Your task to perform on an android device: Clear the shopping cart on costco. Search for duracell triple a on costco, select the first entry, and add it to the cart. Image 0: 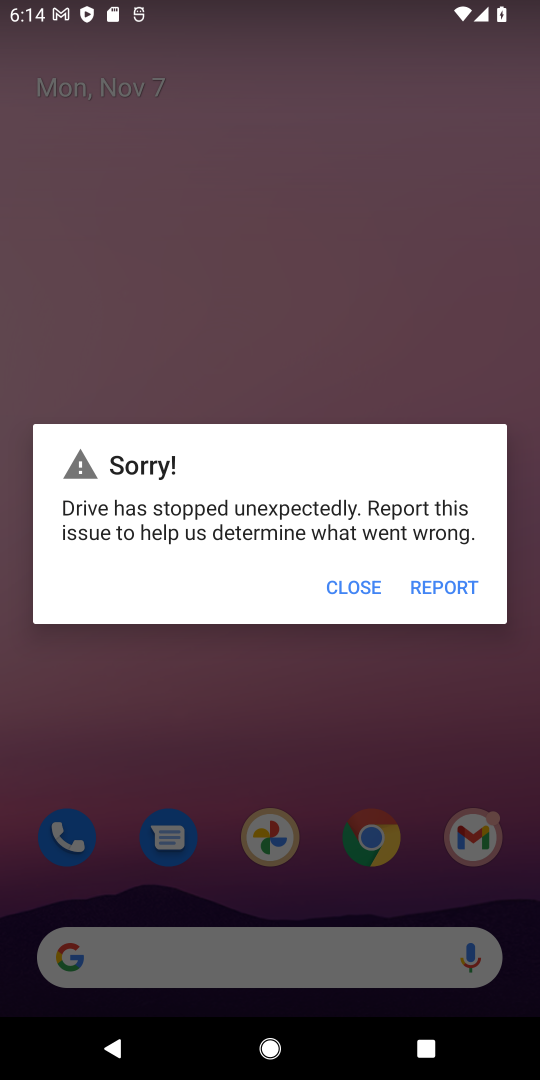
Step 0: press home button
Your task to perform on an android device: Clear the shopping cart on costco. Search for duracell triple a on costco, select the first entry, and add it to the cart. Image 1: 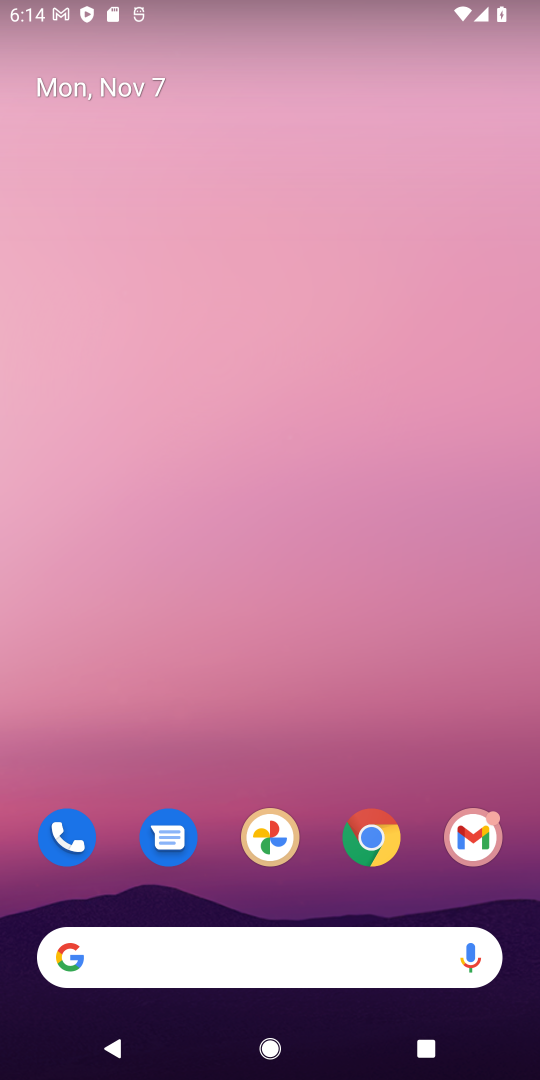
Step 1: click (369, 863)
Your task to perform on an android device: Clear the shopping cart on costco. Search for duracell triple a on costco, select the first entry, and add it to the cart. Image 2: 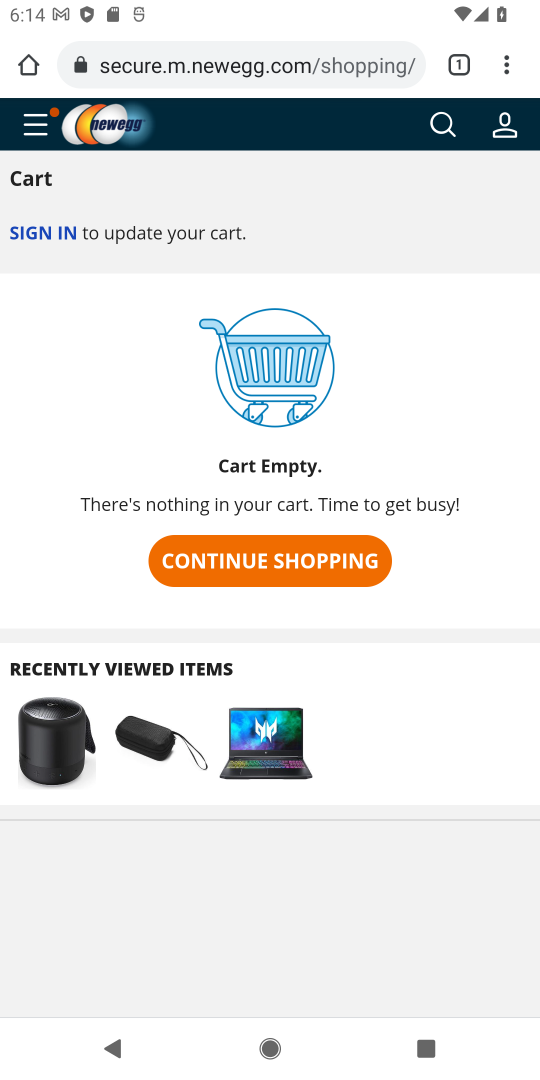
Step 2: click (216, 76)
Your task to perform on an android device: Clear the shopping cart on costco. Search for duracell triple a on costco, select the first entry, and add it to the cart. Image 3: 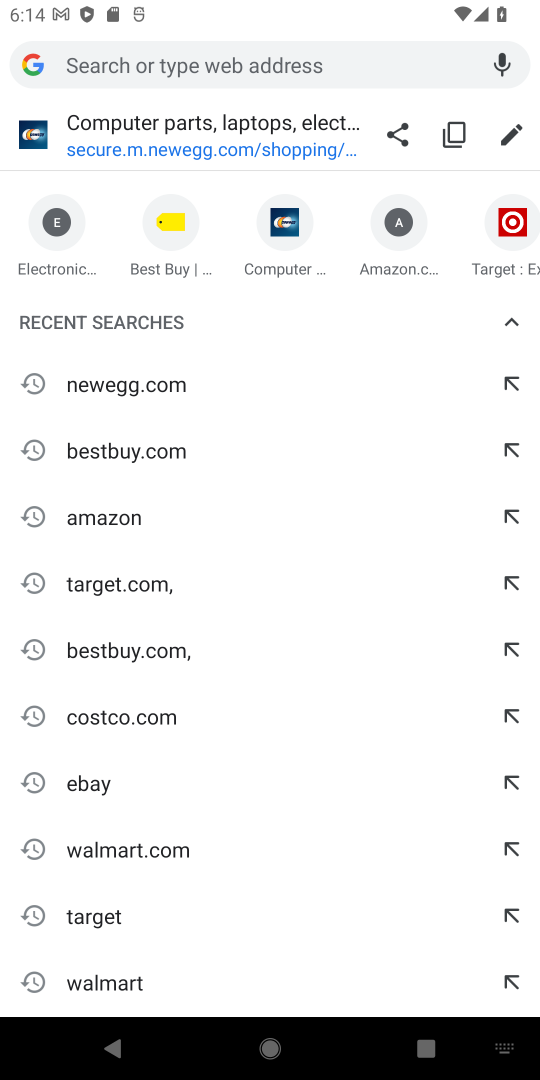
Step 3: type "costco.com"
Your task to perform on an android device: Clear the shopping cart on costco. Search for duracell triple a on costco, select the first entry, and add it to the cart. Image 4: 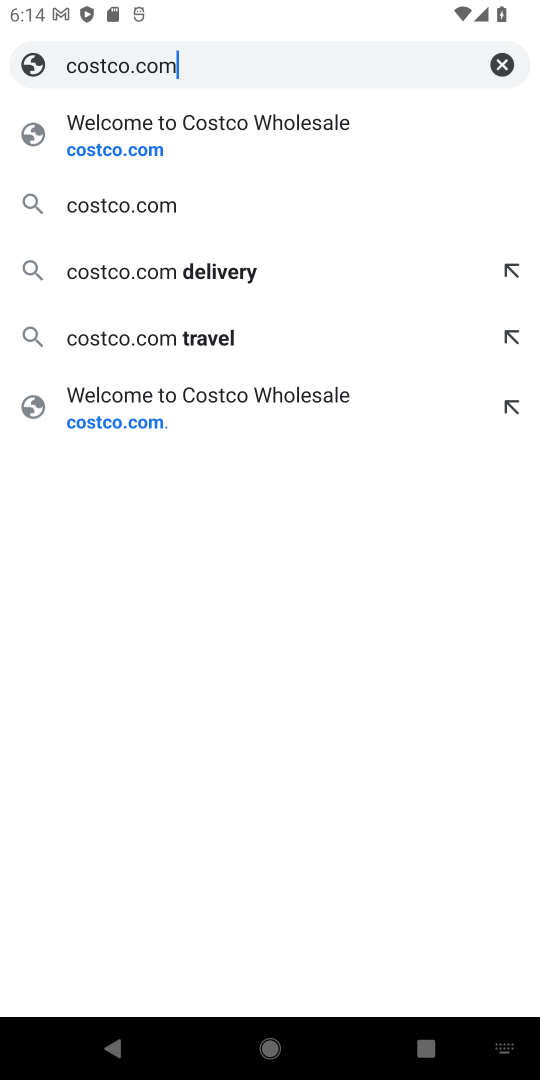
Step 4: click (237, 125)
Your task to perform on an android device: Clear the shopping cart on costco. Search for duracell triple a on costco, select the first entry, and add it to the cart. Image 5: 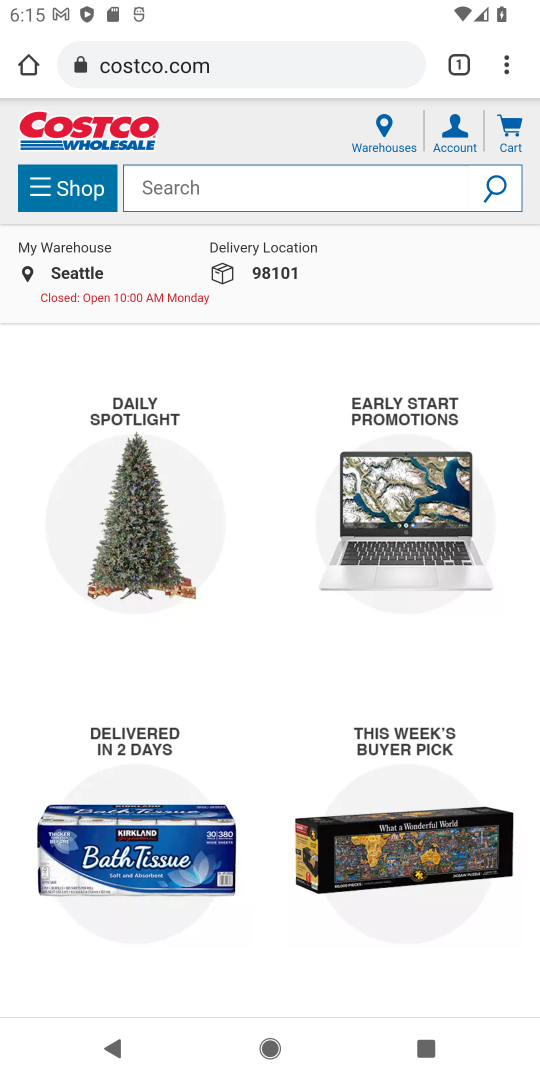
Step 5: click (317, 172)
Your task to perform on an android device: Clear the shopping cart on costco. Search for duracell triple a on costco, select the first entry, and add it to the cart. Image 6: 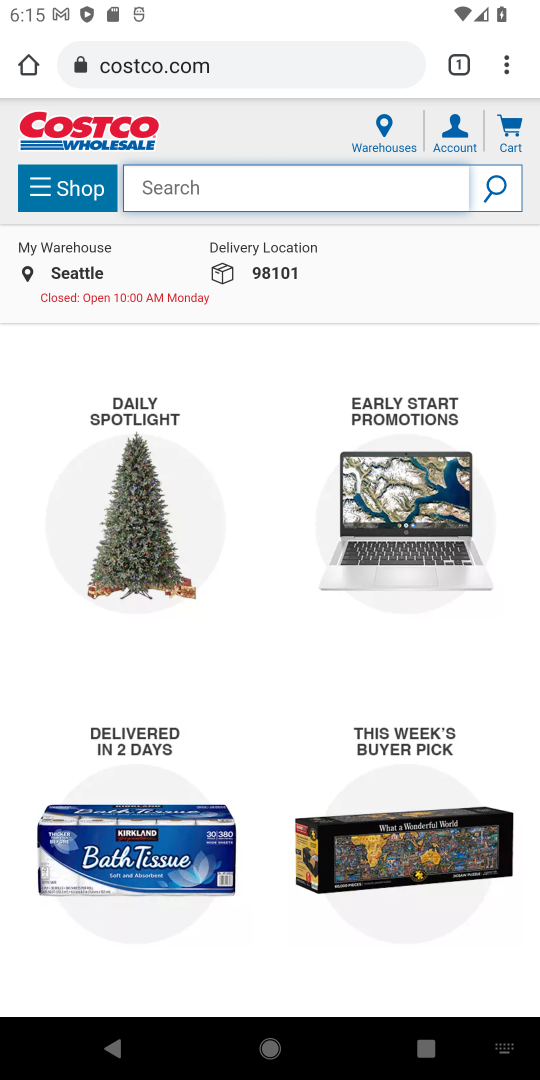
Step 6: type "duracell triple a"
Your task to perform on an android device: Clear the shopping cart on costco. Search for duracell triple a on costco, select the first entry, and add it to the cart. Image 7: 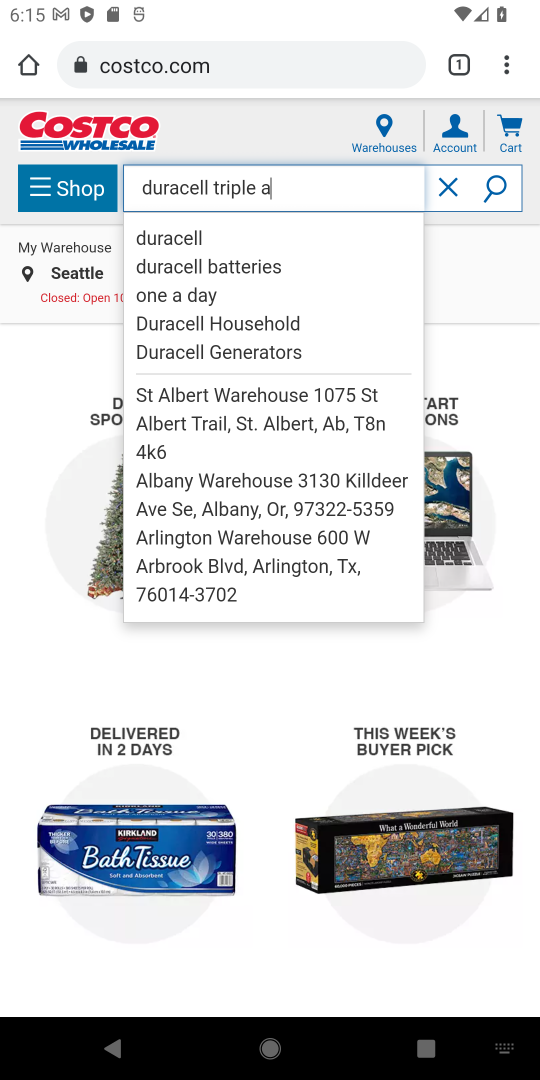
Step 7: press enter
Your task to perform on an android device: Clear the shopping cart on costco. Search for duracell triple a on costco, select the first entry, and add it to the cart. Image 8: 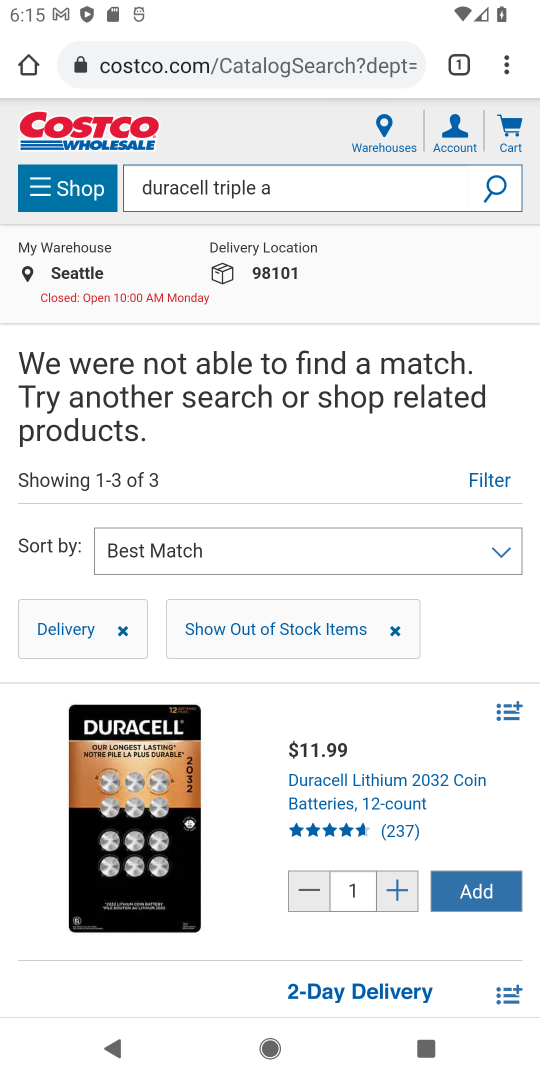
Step 8: click (457, 893)
Your task to perform on an android device: Clear the shopping cart on costco. Search for duracell triple a on costco, select the first entry, and add it to the cart. Image 9: 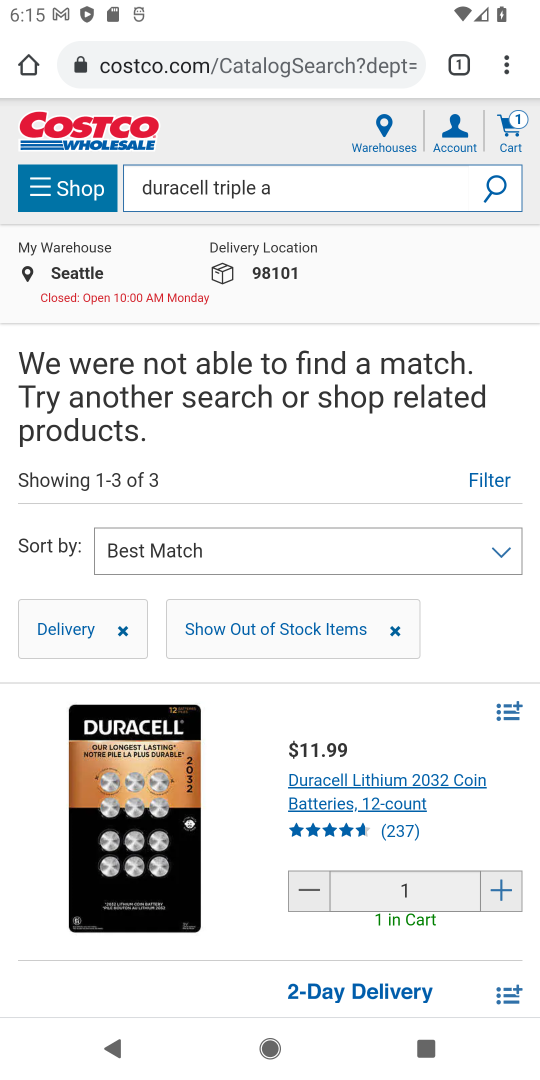
Step 9: task complete